Your task to perform on an android device: check google app version Image 0: 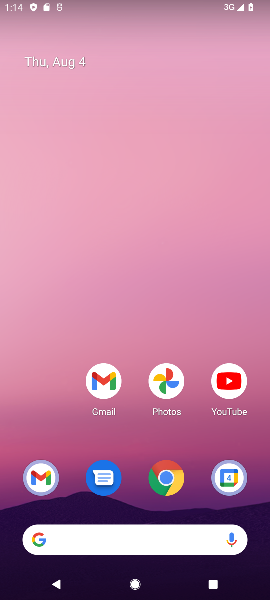
Step 0: drag from (40, 438) to (102, 16)
Your task to perform on an android device: check google app version Image 1: 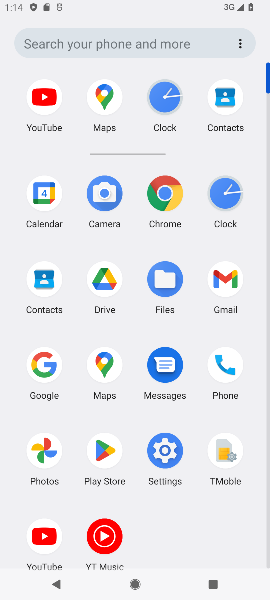
Step 1: click (43, 364)
Your task to perform on an android device: check google app version Image 2: 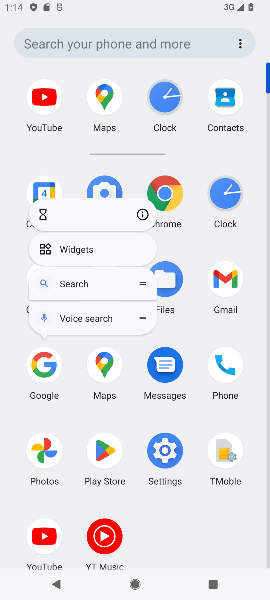
Step 2: click (143, 211)
Your task to perform on an android device: check google app version Image 3: 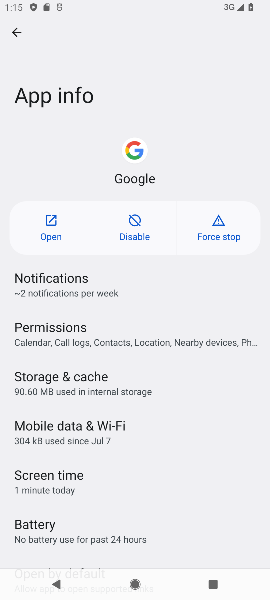
Step 3: task complete